Your task to perform on an android device: Open ESPN.com Image 0: 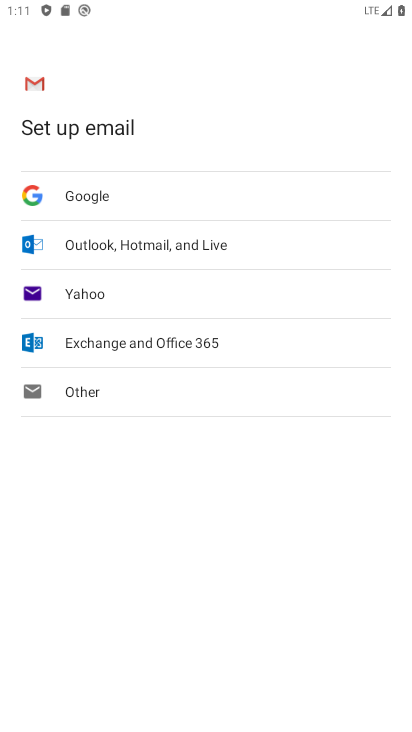
Step 0: press home button
Your task to perform on an android device: Open ESPN.com Image 1: 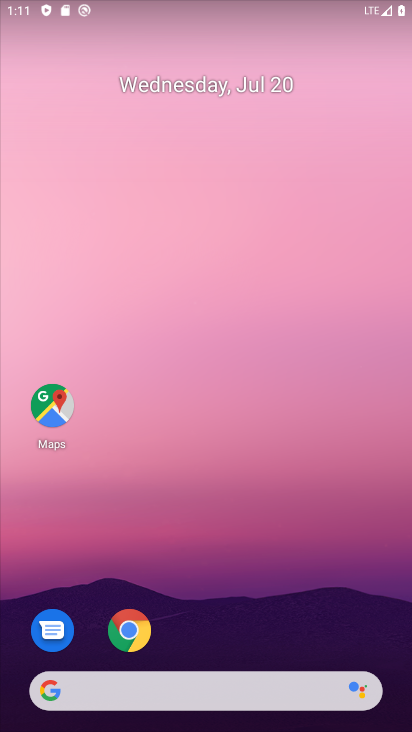
Step 1: drag from (231, 568) to (153, 82)
Your task to perform on an android device: Open ESPN.com Image 2: 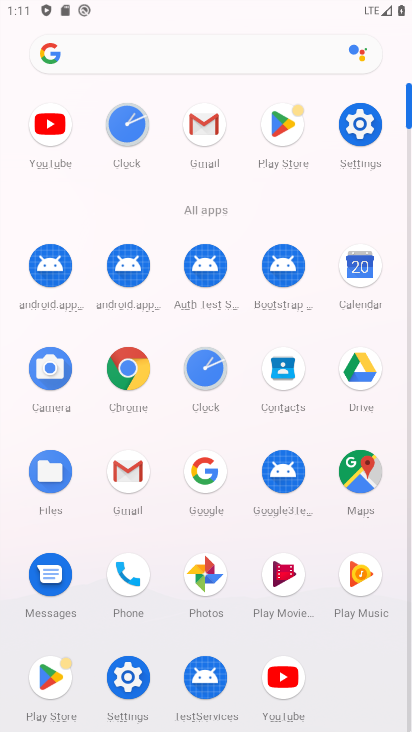
Step 2: click (128, 378)
Your task to perform on an android device: Open ESPN.com Image 3: 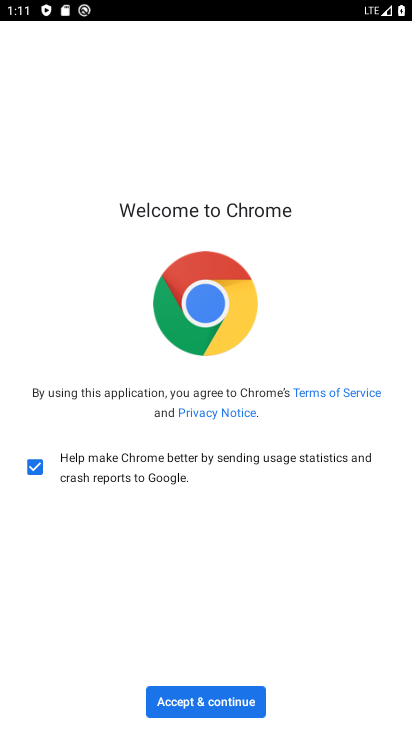
Step 3: click (186, 695)
Your task to perform on an android device: Open ESPN.com Image 4: 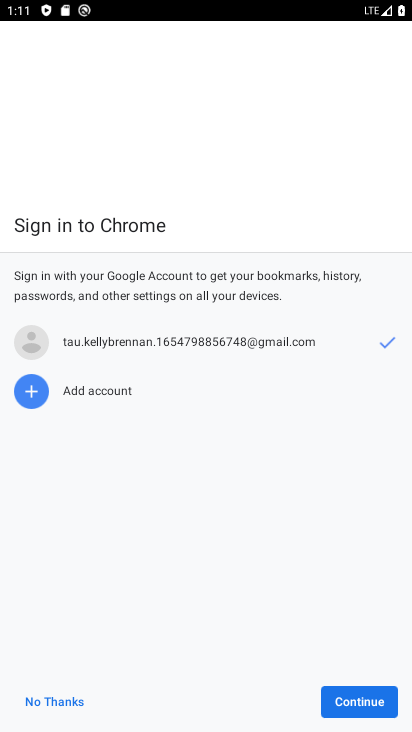
Step 4: click (362, 695)
Your task to perform on an android device: Open ESPN.com Image 5: 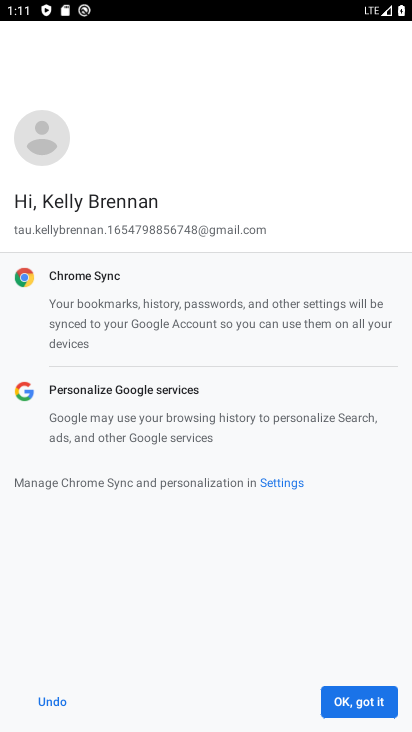
Step 5: click (376, 701)
Your task to perform on an android device: Open ESPN.com Image 6: 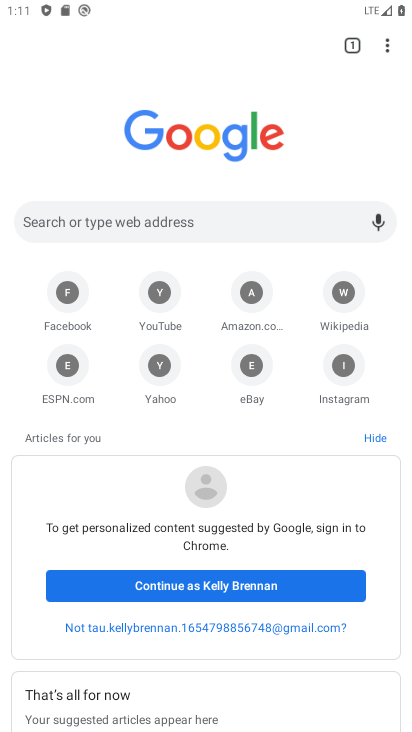
Step 6: click (245, 58)
Your task to perform on an android device: Open ESPN.com Image 7: 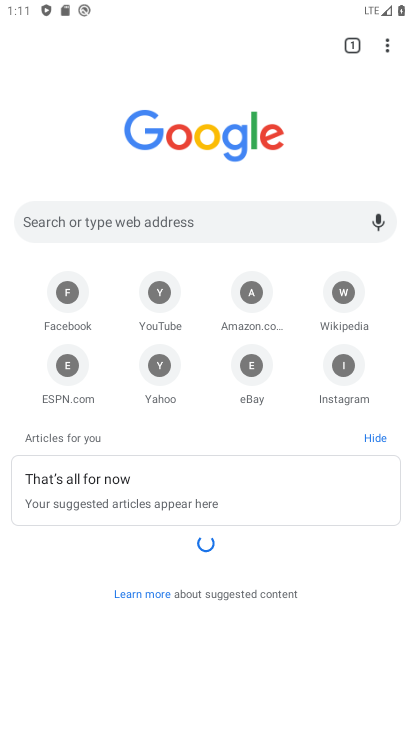
Step 7: click (234, 211)
Your task to perform on an android device: Open ESPN.com Image 8: 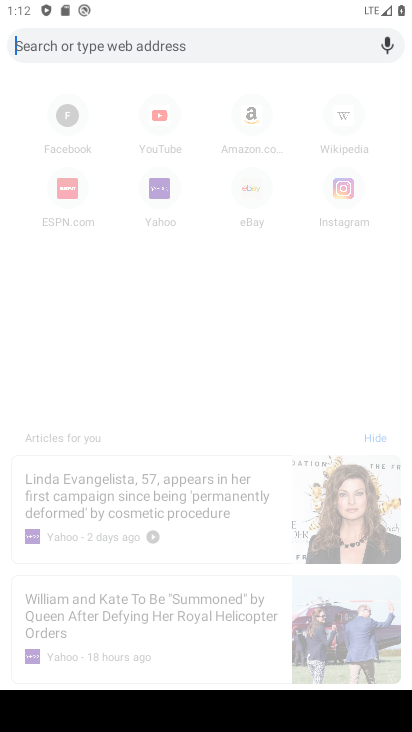
Step 8: type "espn.com"
Your task to perform on an android device: Open ESPN.com Image 9: 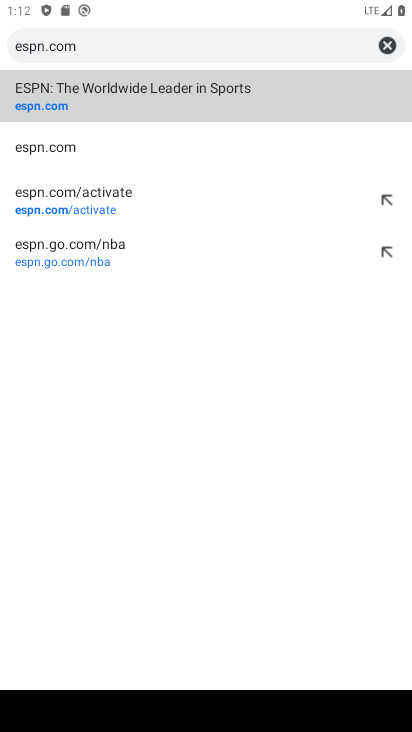
Step 9: click (55, 105)
Your task to perform on an android device: Open ESPN.com Image 10: 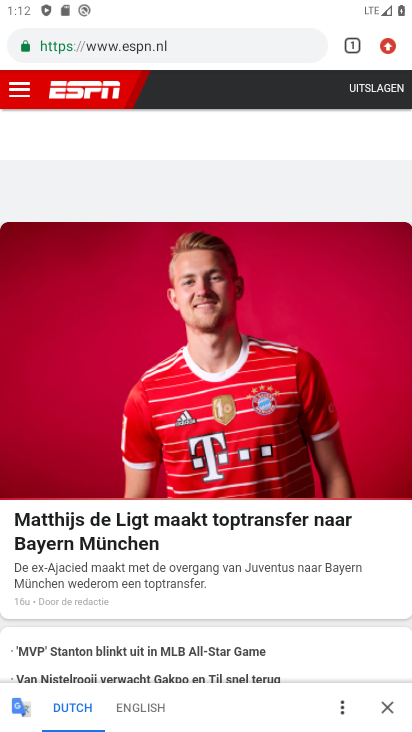
Step 10: task complete